Your task to perform on an android device: turn off location history Image 0: 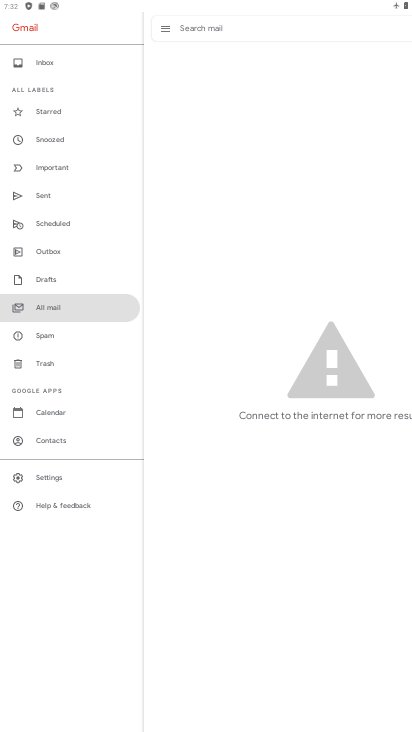
Step 0: press home button
Your task to perform on an android device: turn off location history Image 1: 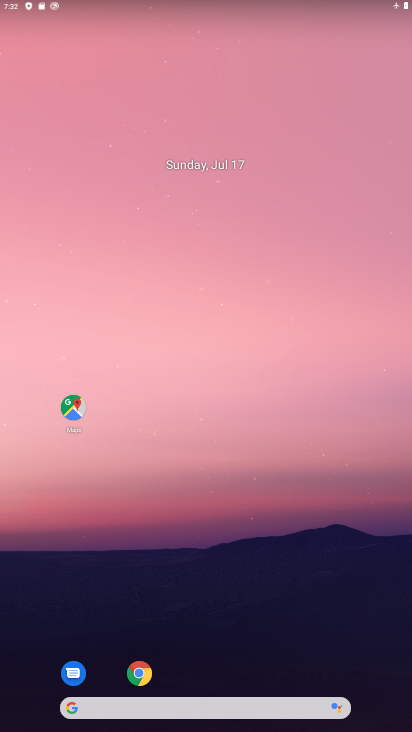
Step 1: drag from (292, 562) to (353, 84)
Your task to perform on an android device: turn off location history Image 2: 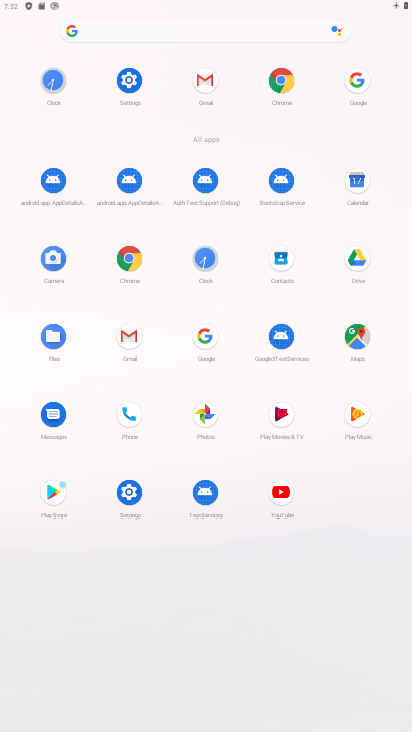
Step 2: click (132, 78)
Your task to perform on an android device: turn off location history Image 3: 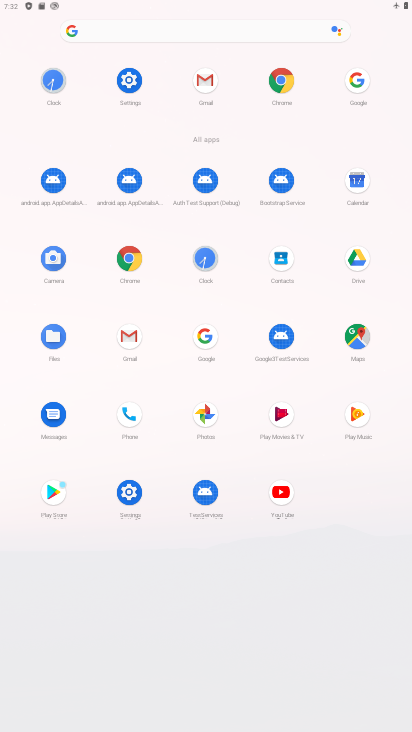
Step 3: click (139, 93)
Your task to perform on an android device: turn off location history Image 4: 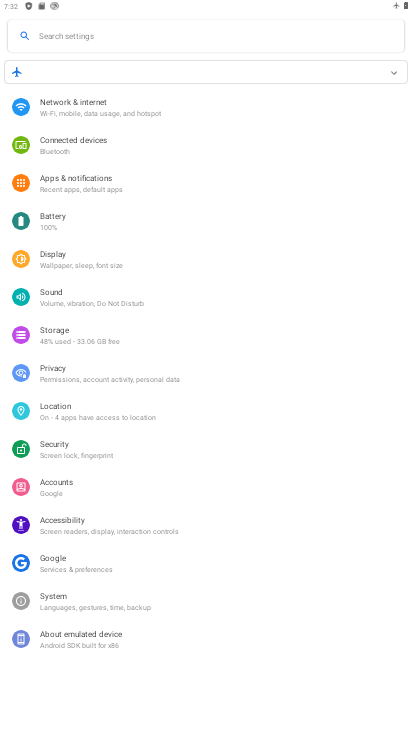
Step 4: click (62, 404)
Your task to perform on an android device: turn off location history Image 5: 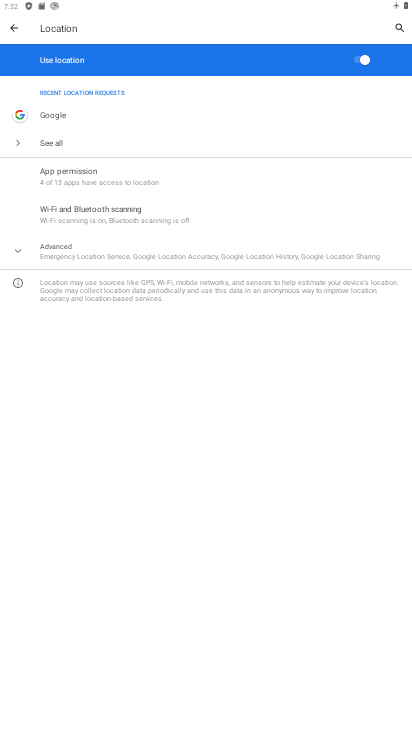
Step 5: click (64, 246)
Your task to perform on an android device: turn off location history Image 6: 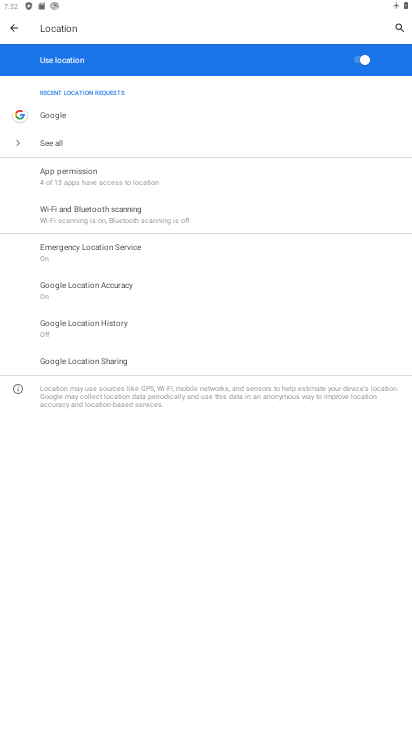
Step 6: click (89, 317)
Your task to perform on an android device: turn off location history Image 7: 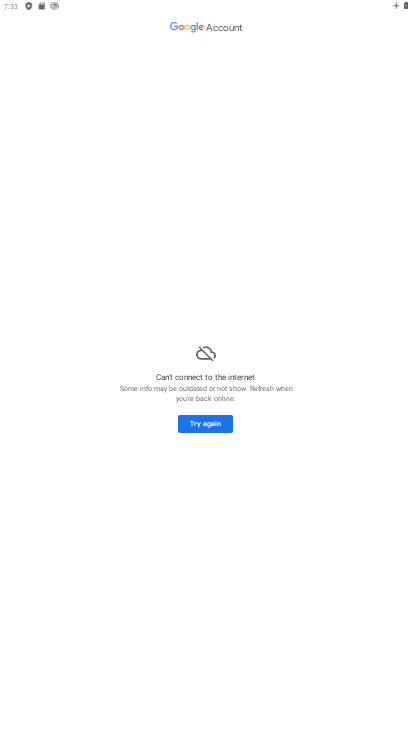
Step 7: task complete